Your task to perform on an android device: set the timer Image 0: 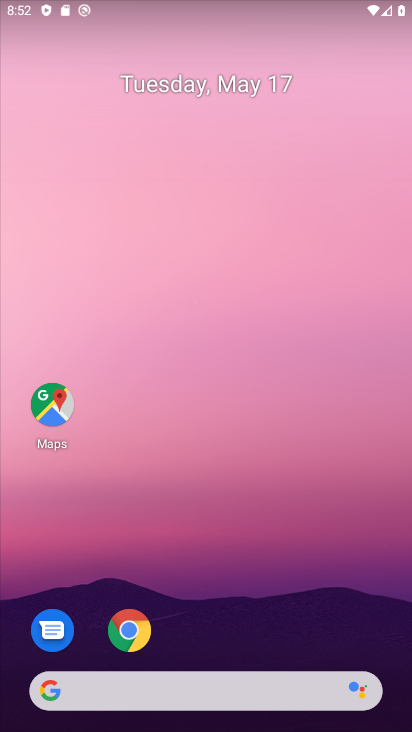
Step 0: drag from (364, 598) to (329, 38)
Your task to perform on an android device: set the timer Image 1: 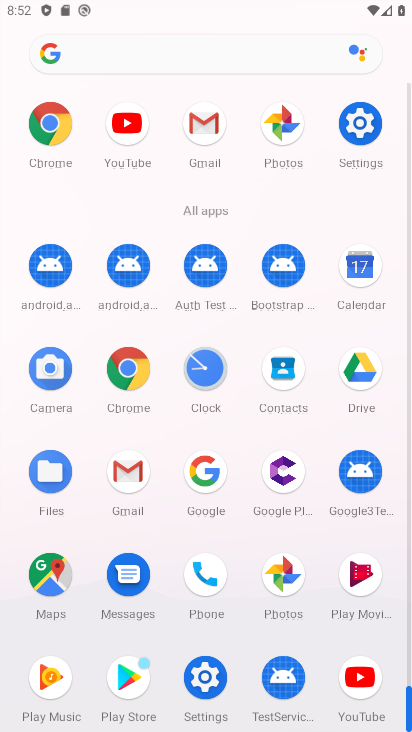
Step 1: click (214, 378)
Your task to perform on an android device: set the timer Image 2: 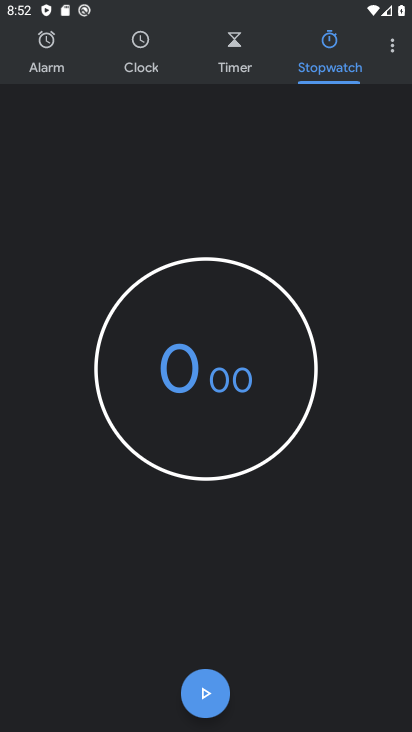
Step 2: click (222, 55)
Your task to perform on an android device: set the timer Image 3: 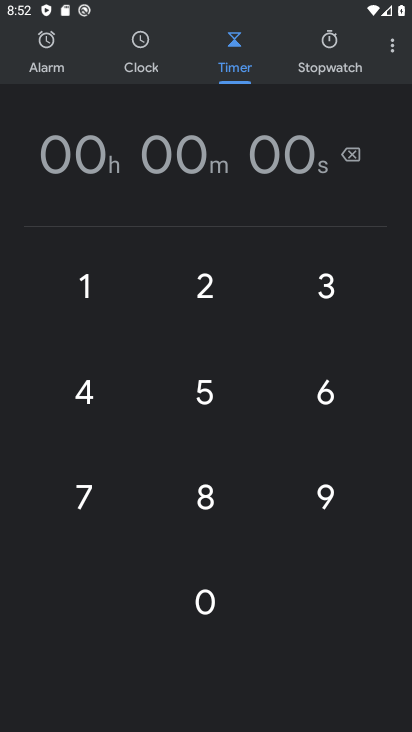
Step 3: click (195, 404)
Your task to perform on an android device: set the timer Image 4: 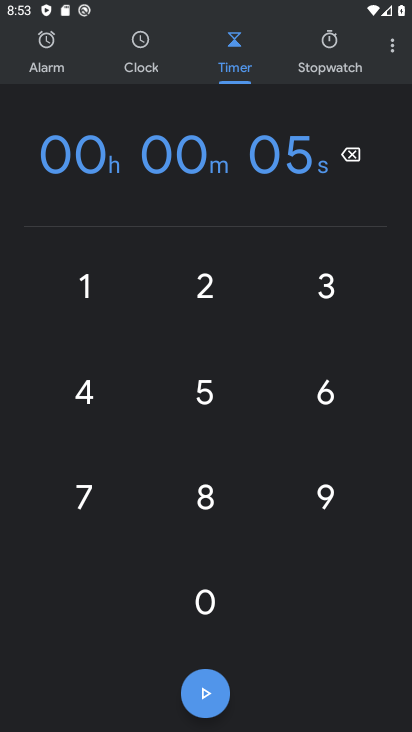
Step 4: click (209, 392)
Your task to perform on an android device: set the timer Image 5: 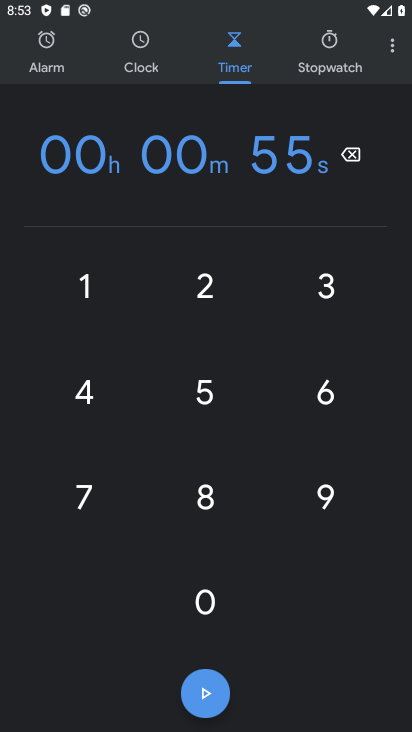
Step 5: task complete